Your task to perform on an android device: turn on data saver in the chrome app Image 0: 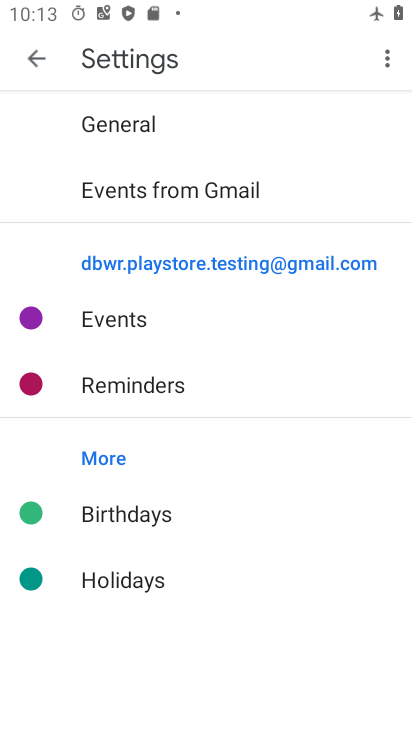
Step 0: press back button
Your task to perform on an android device: turn on data saver in the chrome app Image 1: 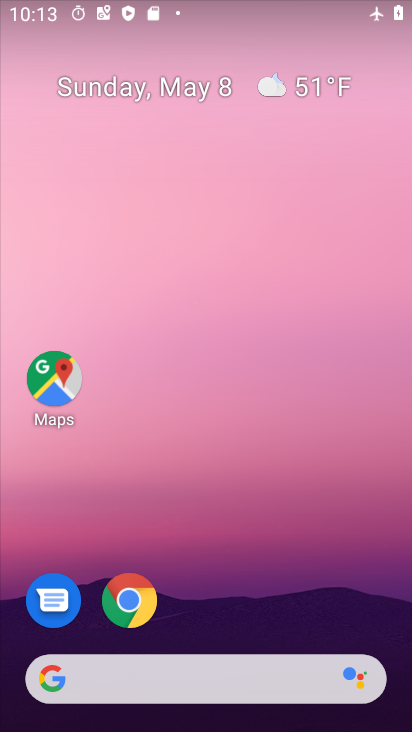
Step 1: drag from (314, 582) to (284, 41)
Your task to perform on an android device: turn on data saver in the chrome app Image 2: 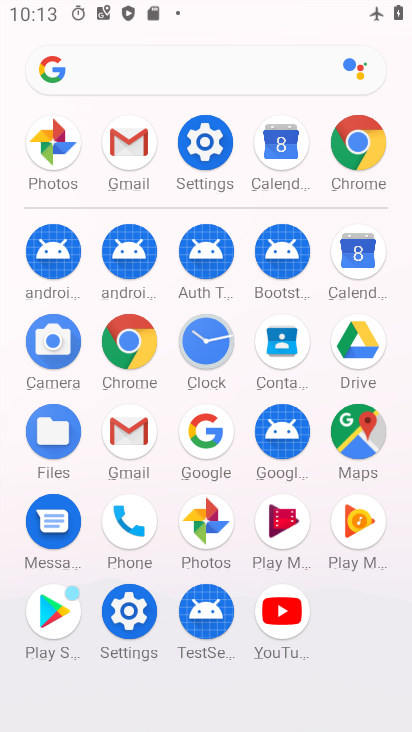
Step 2: drag from (0, 595) to (12, 291)
Your task to perform on an android device: turn on data saver in the chrome app Image 3: 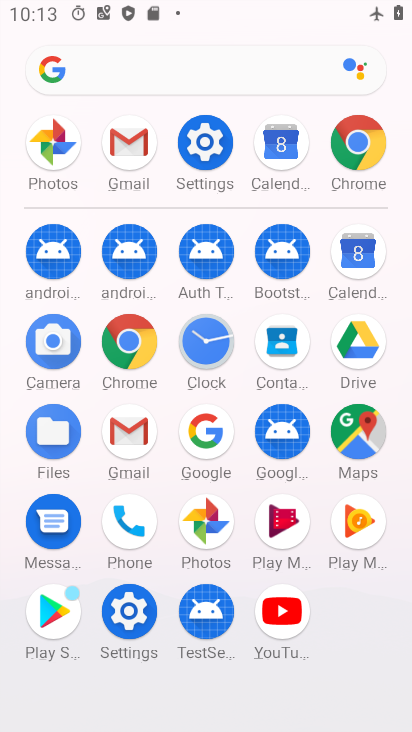
Step 3: click (351, 138)
Your task to perform on an android device: turn on data saver in the chrome app Image 4: 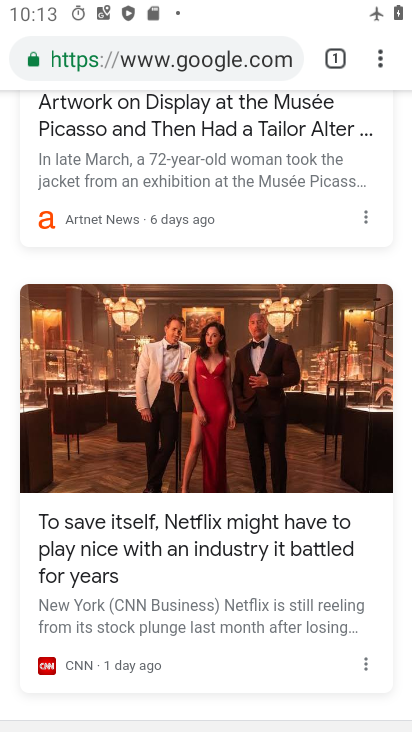
Step 4: drag from (379, 64) to (210, 639)
Your task to perform on an android device: turn on data saver in the chrome app Image 5: 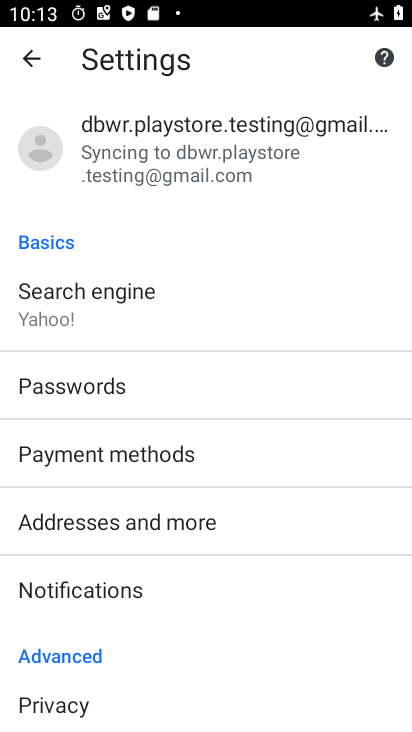
Step 5: drag from (280, 640) to (259, 205)
Your task to perform on an android device: turn on data saver in the chrome app Image 6: 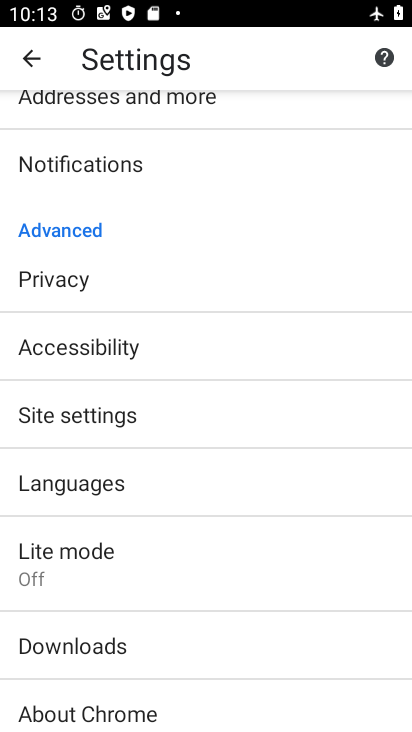
Step 6: click (114, 559)
Your task to perform on an android device: turn on data saver in the chrome app Image 7: 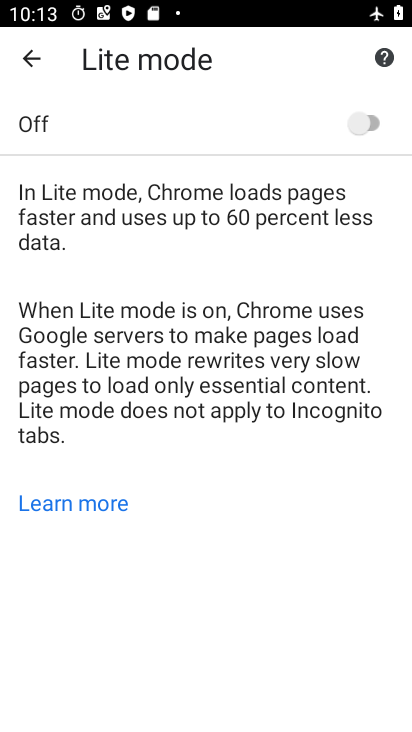
Step 7: click (362, 104)
Your task to perform on an android device: turn on data saver in the chrome app Image 8: 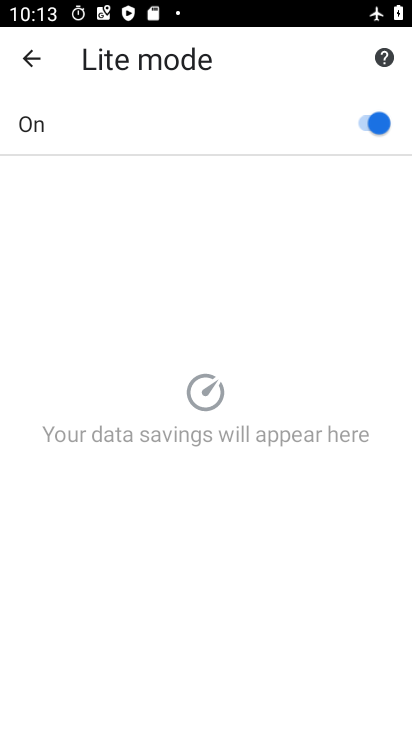
Step 8: task complete